Your task to perform on an android device: Open Google Chrome and click the shortcut for Amazon.com Image 0: 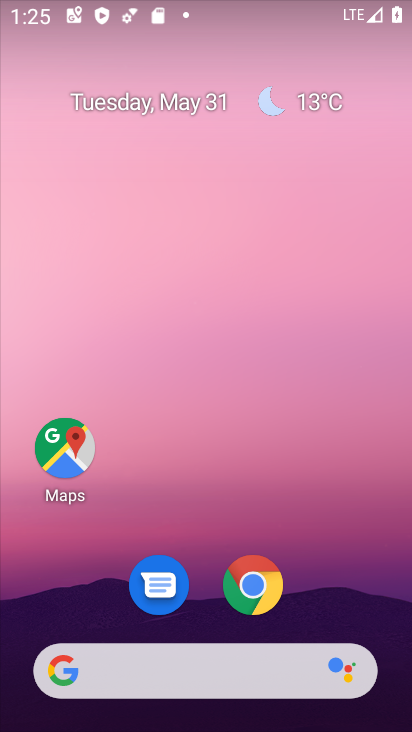
Step 0: click (259, 586)
Your task to perform on an android device: Open Google Chrome and click the shortcut for Amazon.com Image 1: 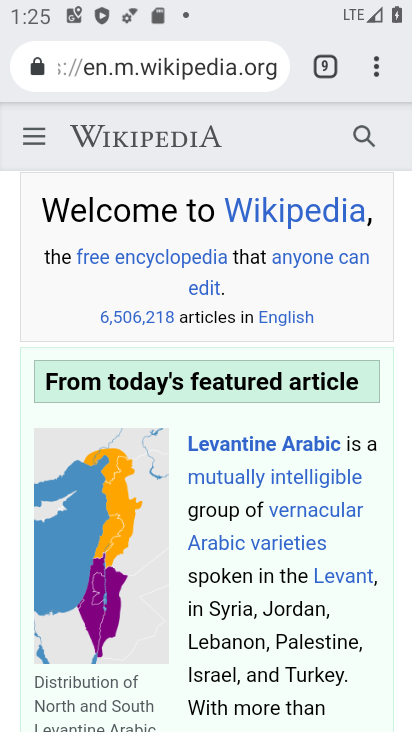
Step 1: click (382, 68)
Your task to perform on an android device: Open Google Chrome and click the shortcut for Amazon.com Image 2: 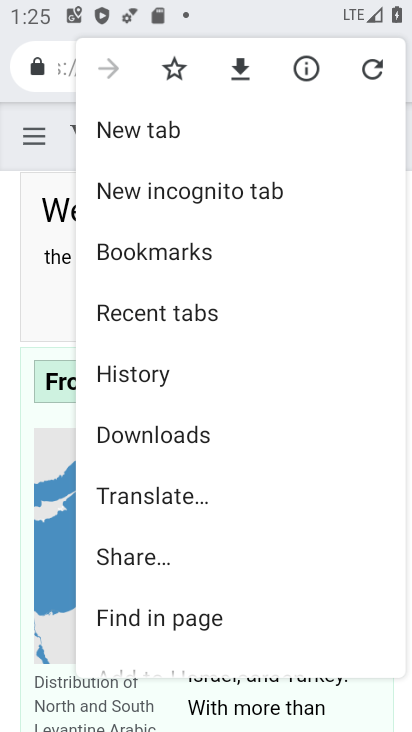
Step 2: click (278, 121)
Your task to perform on an android device: Open Google Chrome and click the shortcut for Amazon.com Image 3: 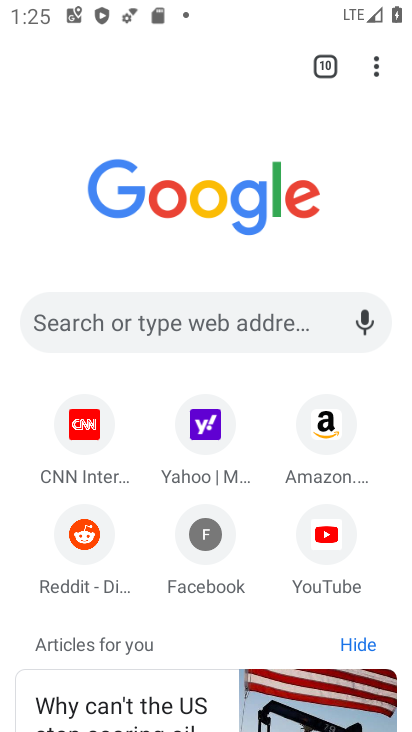
Step 3: click (328, 414)
Your task to perform on an android device: Open Google Chrome and click the shortcut for Amazon.com Image 4: 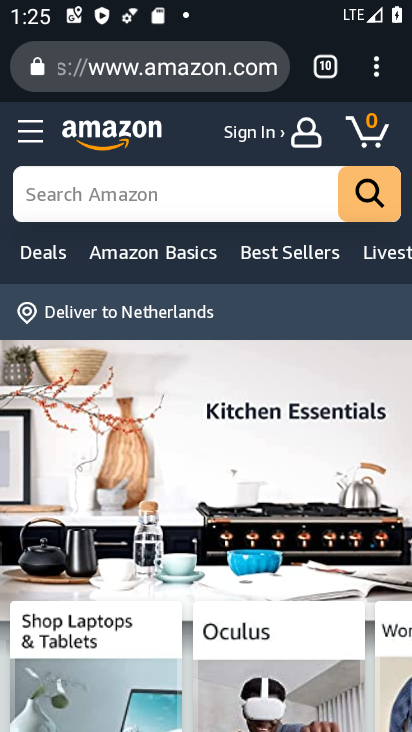
Step 4: task complete